Your task to perform on an android device: Open sound settings Image 0: 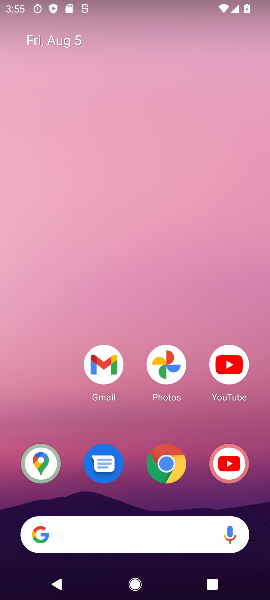
Step 0: drag from (150, 565) to (109, 246)
Your task to perform on an android device: Open sound settings Image 1: 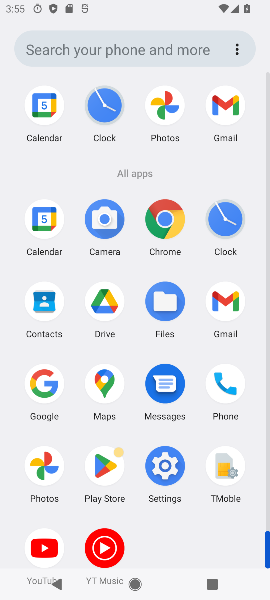
Step 1: drag from (131, 462) to (109, 325)
Your task to perform on an android device: Open sound settings Image 2: 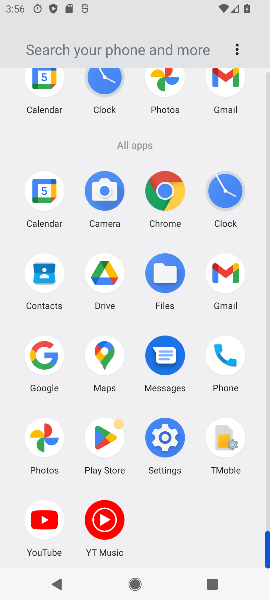
Step 2: click (156, 433)
Your task to perform on an android device: Open sound settings Image 3: 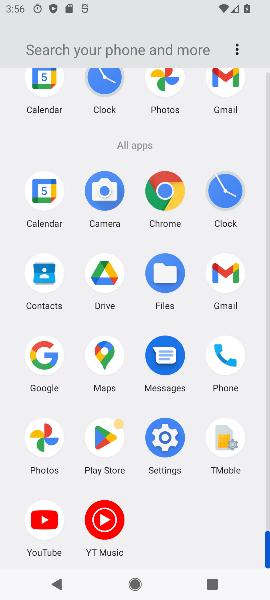
Step 3: click (154, 435)
Your task to perform on an android device: Open sound settings Image 4: 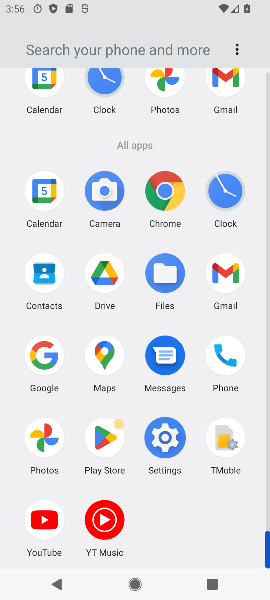
Step 4: click (154, 435)
Your task to perform on an android device: Open sound settings Image 5: 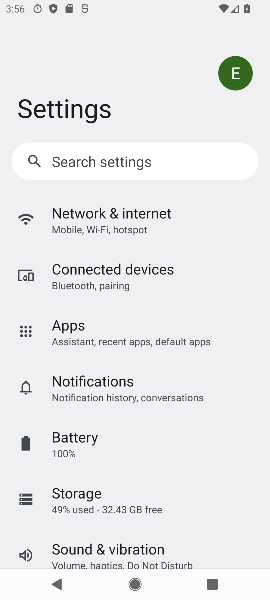
Step 5: drag from (110, 478) to (110, 247)
Your task to perform on an android device: Open sound settings Image 6: 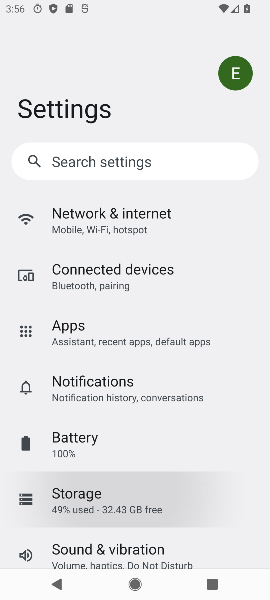
Step 6: drag from (145, 492) to (113, 269)
Your task to perform on an android device: Open sound settings Image 7: 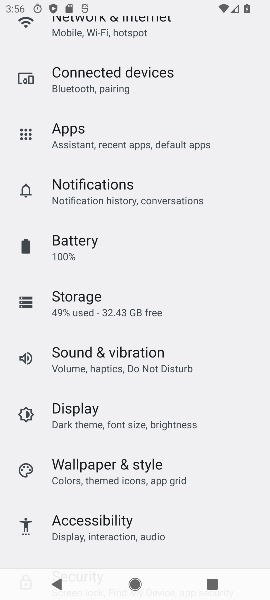
Step 7: click (95, 363)
Your task to perform on an android device: Open sound settings Image 8: 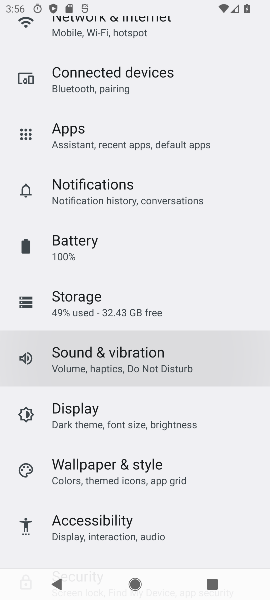
Step 8: click (100, 363)
Your task to perform on an android device: Open sound settings Image 9: 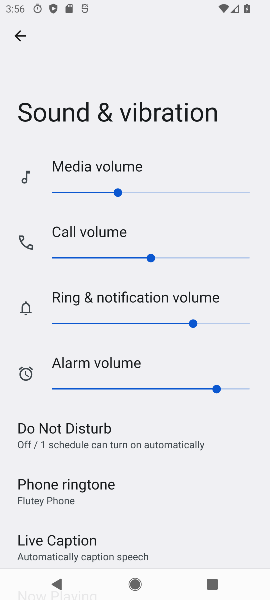
Step 9: task complete